Your task to perform on an android device: Do I have any events tomorrow? Image 0: 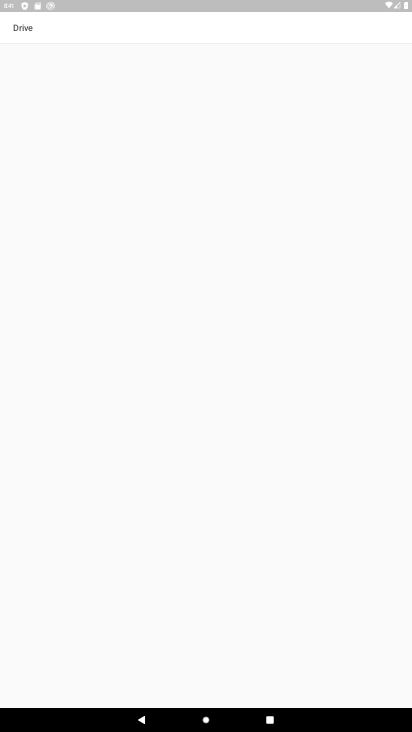
Step 0: press home button
Your task to perform on an android device: Do I have any events tomorrow? Image 1: 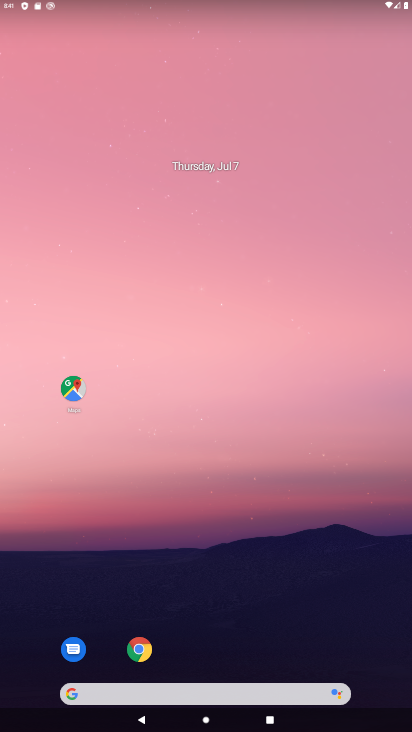
Step 1: drag from (255, 690) to (271, 23)
Your task to perform on an android device: Do I have any events tomorrow? Image 2: 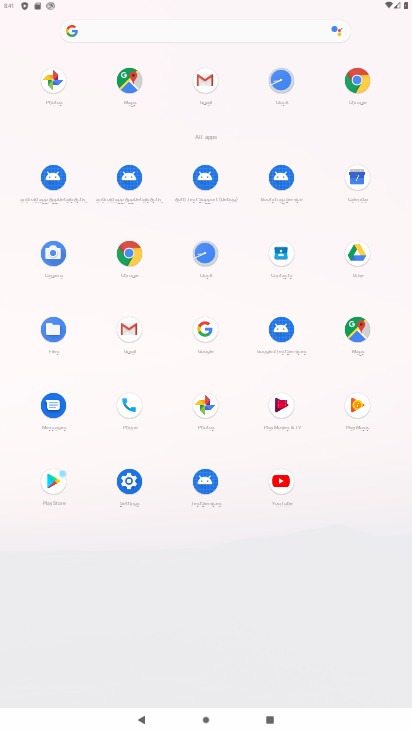
Step 2: click (355, 178)
Your task to perform on an android device: Do I have any events tomorrow? Image 3: 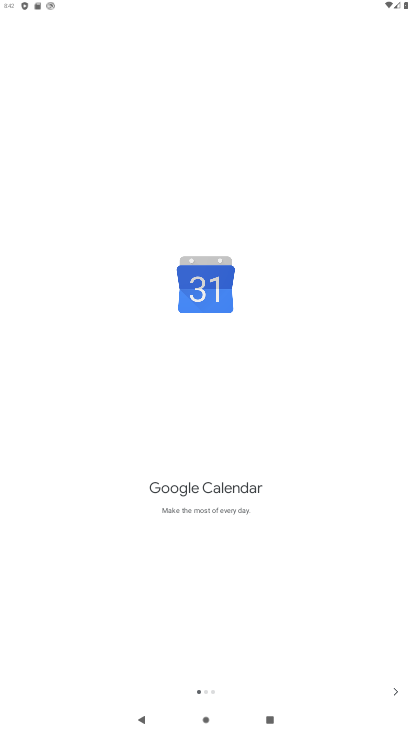
Step 3: click (391, 687)
Your task to perform on an android device: Do I have any events tomorrow? Image 4: 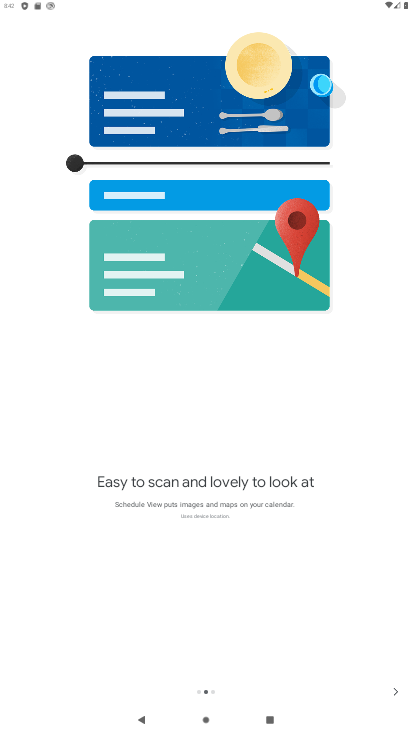
Step 4: click (391, 687)
Your task to perform on an android device: Do I have any events tomorrow? Image 5: 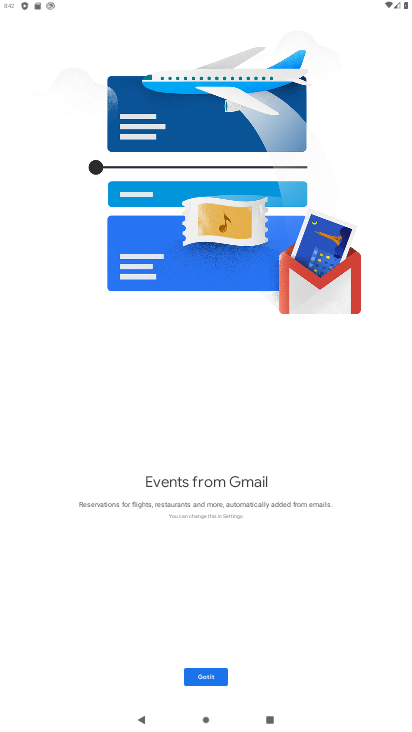
Step 5: click (212, 679)
Your task to perform on an android device: Do I have any events tomorrow? Image 6: 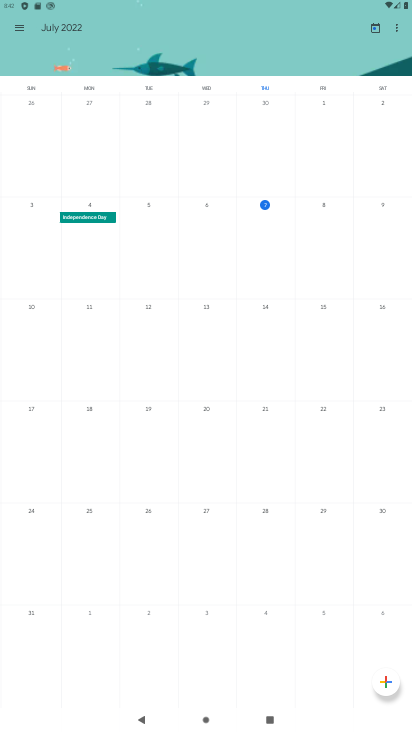
Step 6: click (320, 206)
Your task to perform on an android device: Do I have any events tomorrow? Image 7: 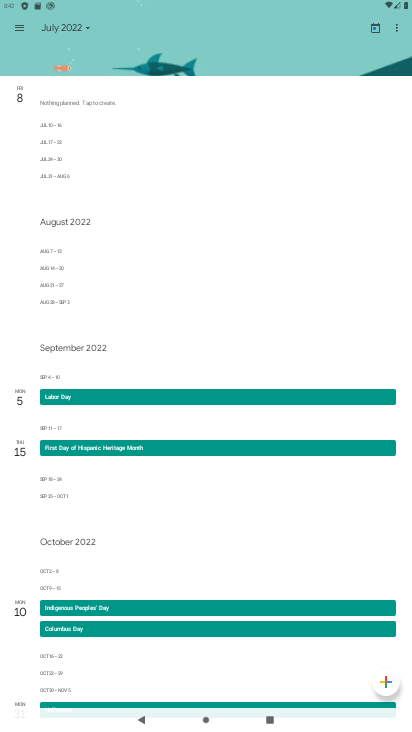
Step 7: task complete